Your task to perform on an android device: Go to Yahoo.com Image 0: 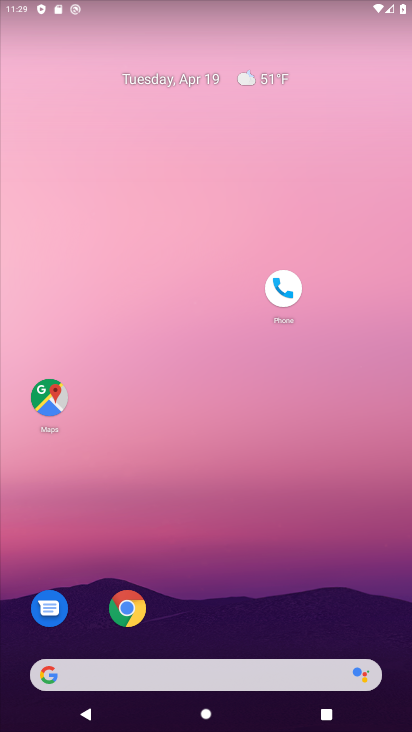
Step 0: drag from (178, 636) to (214, 70)
Your task to perform on an android device: Go to Yahoo.com Image 1: 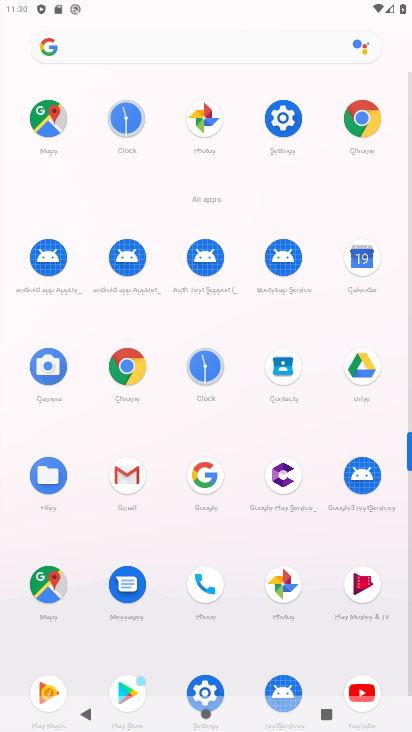
Step 1: click (129, 371)
Your task to perform on an android device: Go to Yahoo.com Image 2: 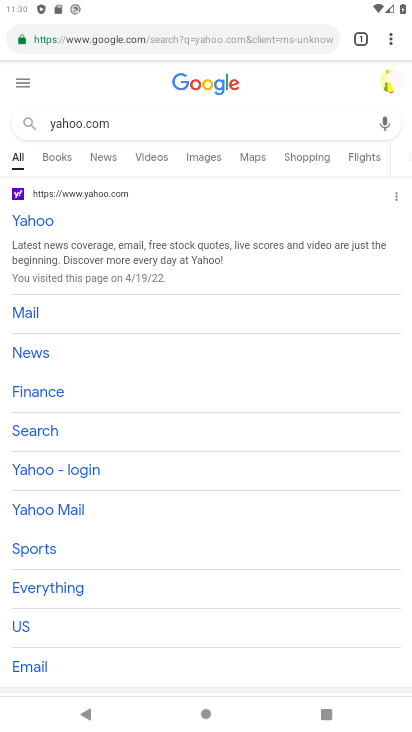
Step 2: click (111, 41)
Your task to perform on an android device: Go to Yahoo.com Image 3: 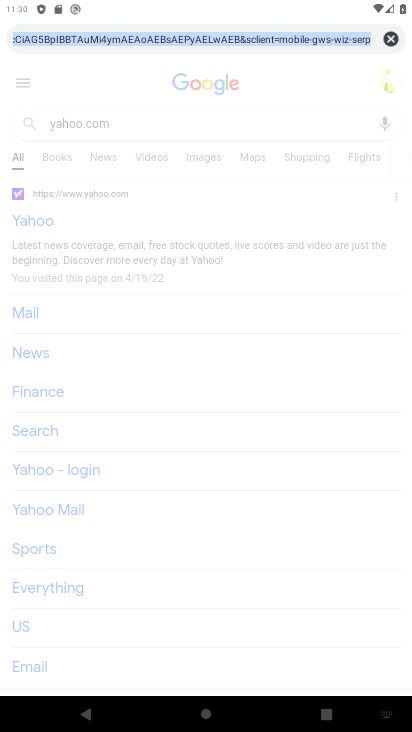
Step 3: type "yahoo.com"
Your task to perform on an android device: Go to Yahoo.com Image 4: 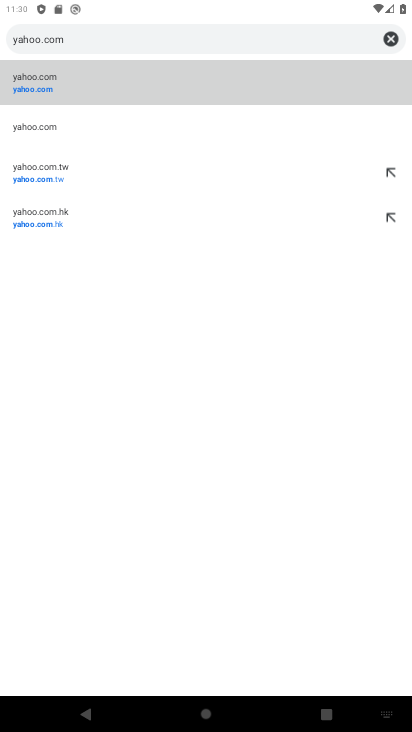
Step 4: click (110, 84)
Your task to perform on an android device: Go to Yahoo.com Image 5: 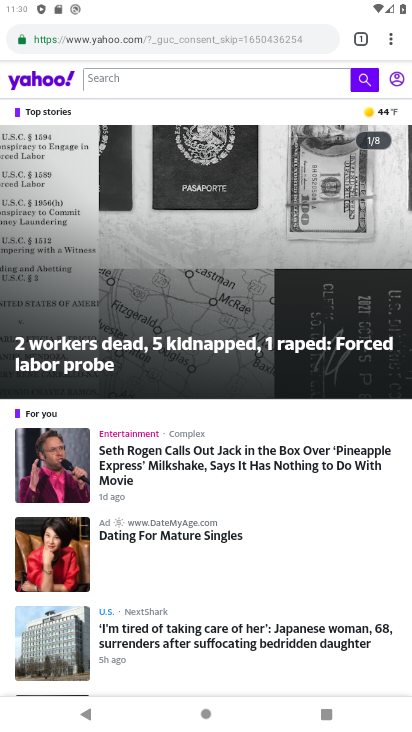
Step 5: task complete